Your task to perform on an android device: Open Google Image 0: 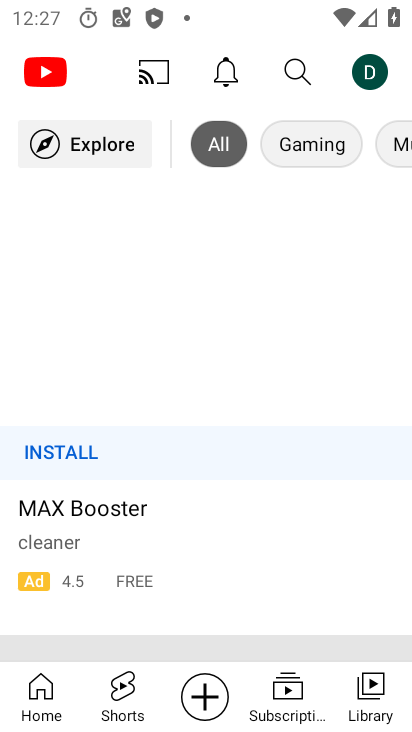
Step 0: press home button
Your task to perform on an android device: Open Google Image 1: 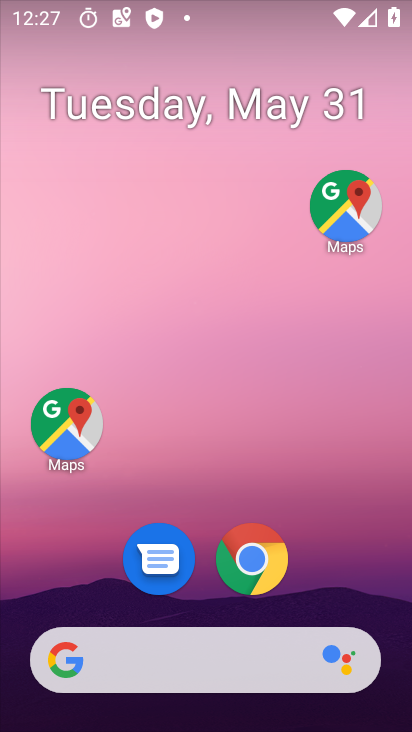
Step 1: drag from (323, 567) to (330, 222)
Your task to perform on an android device: Open Google Image 2: 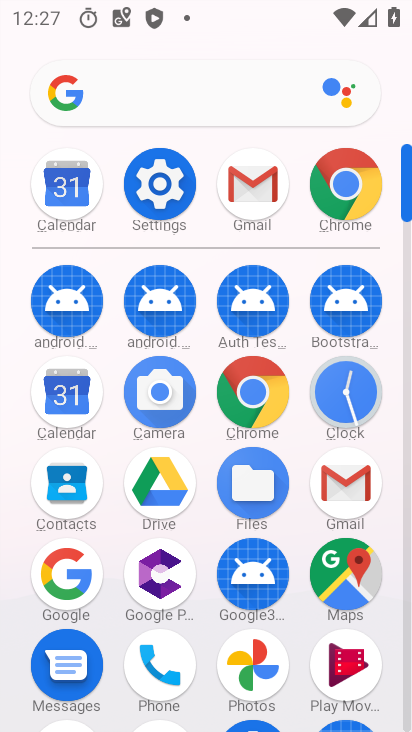
Step 2: click (65, 588)
Your task to perform on an android device: Open Google Image 3: 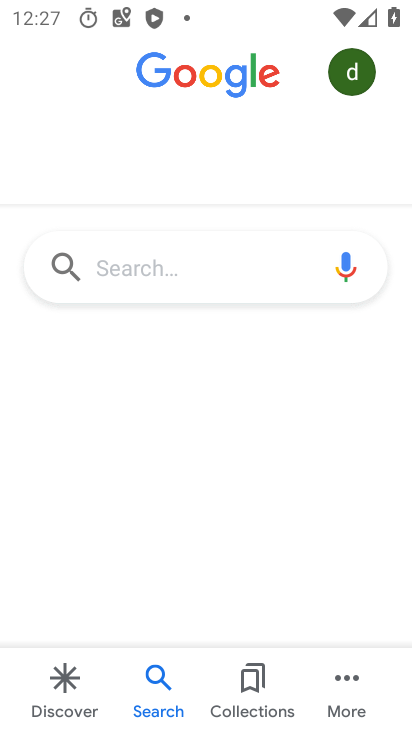
Step 3: task complete